Your task to perform on an android device: Open Yahoo.com Image 0: 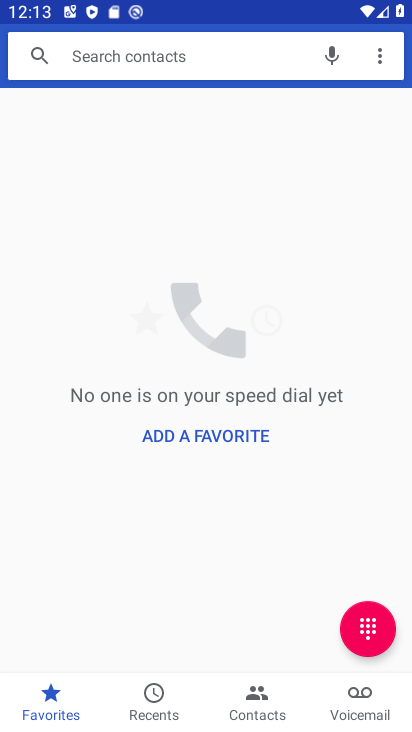
Step 0: press home button
Your task to perform on an android device: Open Yahoo.com Image 1: 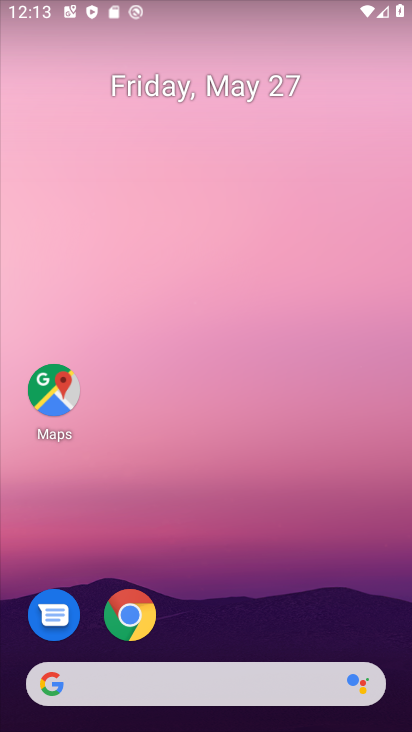
Step 1: drag from (273, 544) to (253, 73)
Your task to perform on an android device: Open Yahoo.com Image 2: 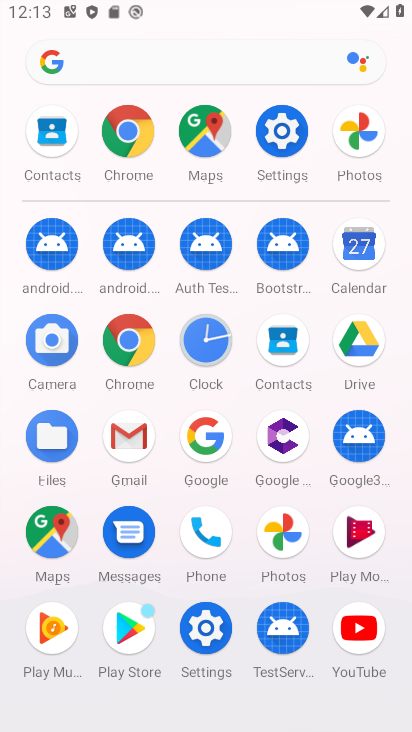
Step 2: click (135, 342)
Your task to perform on an android device: Open Yahoo.com Image 3: 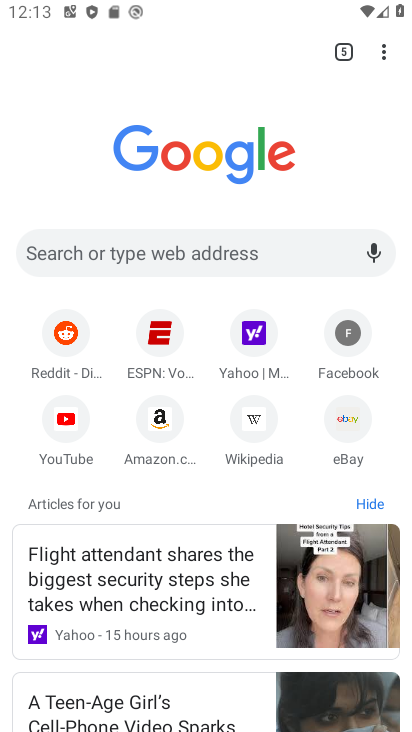
Step 3: click (252, 347)
Your task to perform on an android device: Open Yahoo.com Image 4: 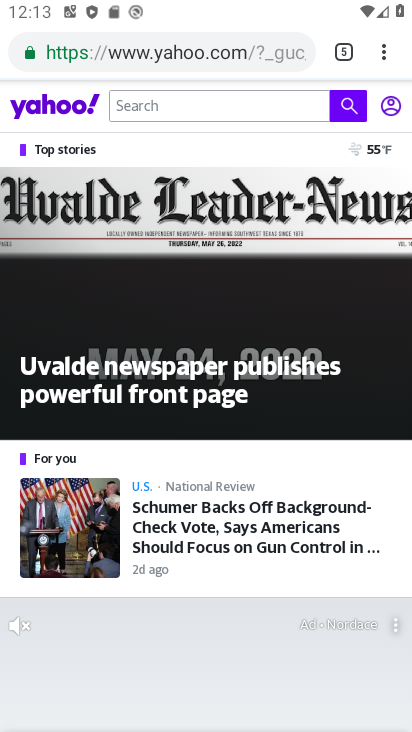
Step 4: task complete